Your task to perform on an android device: Go to accessibility settings Image 0: 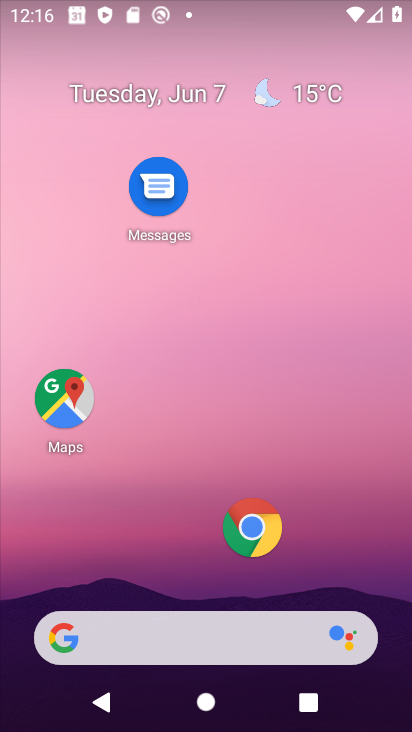
Step 0: drag from (187, 577) to (191, 89)
Your task to perform on an android device: Go to accessibility settings Image 1: 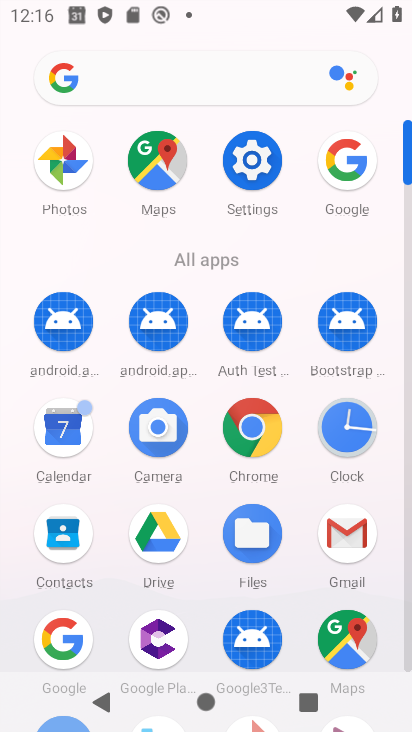
Step 1: click (241, 176)
Your task to perform on an android device: Go to accessibility settings Image 2: 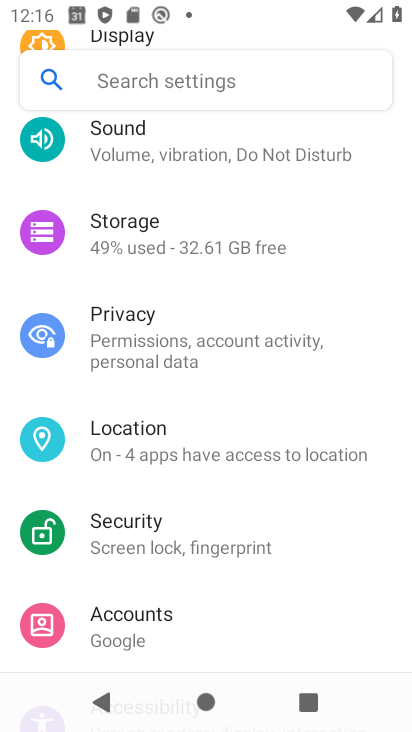
Step 2: drag from (213, 654) to (195, 209)
Your task to perform on an android device: Go to accessibility settings Image 3: 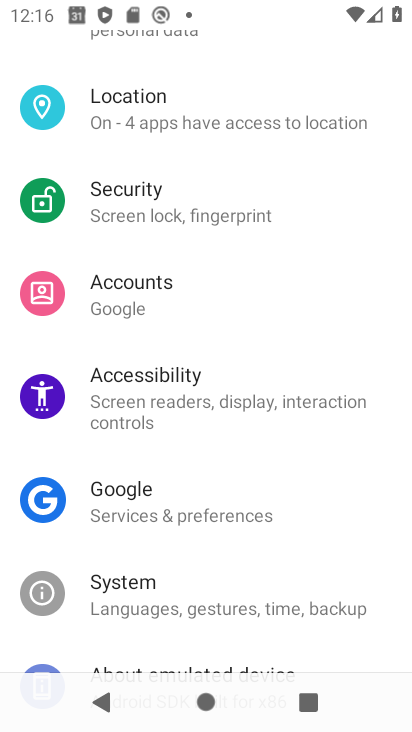
Step 3: click (134, 398)
Your task to perform on an android device: Go to accessibility settings Image 4: 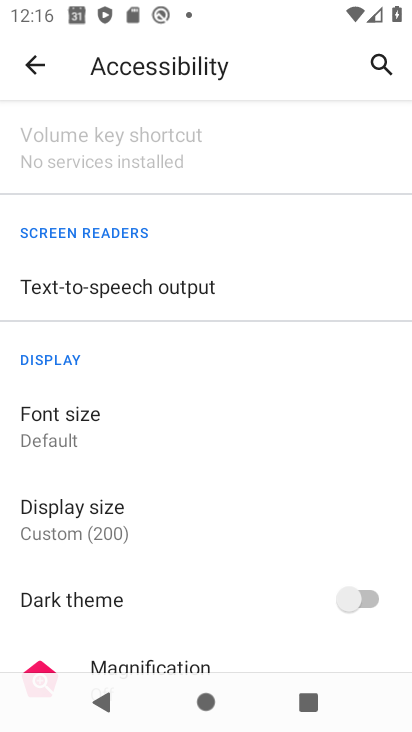
Step 4: task complete